Your task to perform on an android device: Open Android settings Image 0: 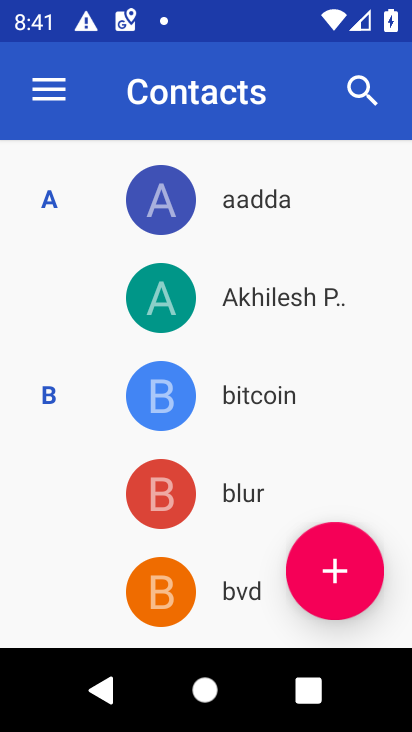
Step 0: press home button
Your task to perform on an android device: Open Android settings Image 1: 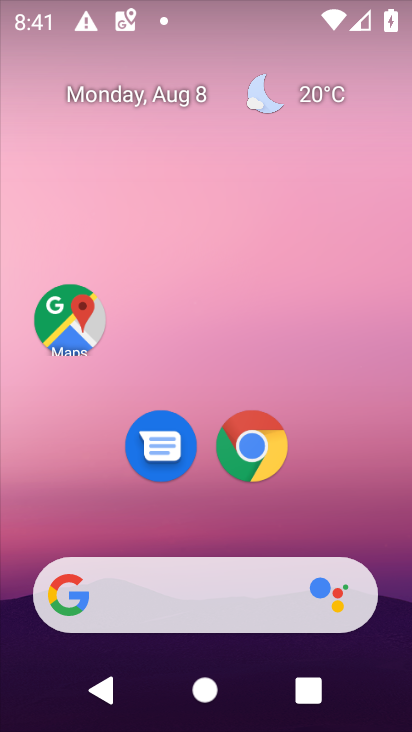
Step 1: drag from (395, 637) to (342, 154)
Your task to perform on an android device: Open Android settings Image 2: 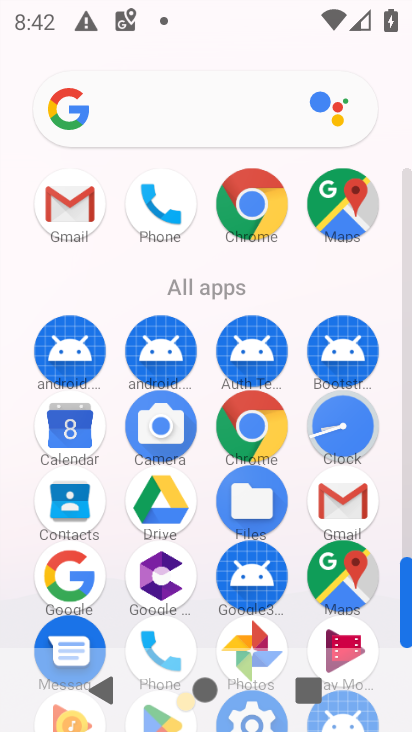
Step 2: click (408, 657)
Your task to perform on an android device: Open Android settings Image 3: 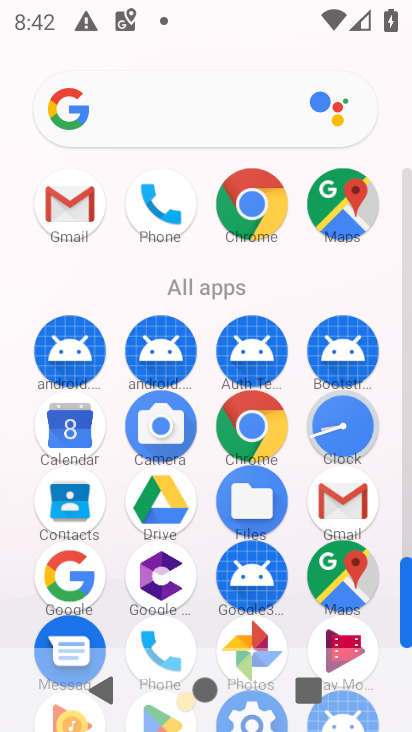
Step 3: drag from (405, 636) to (408, 679)
Your task to perform on an android device: Open Android settings Image 4: 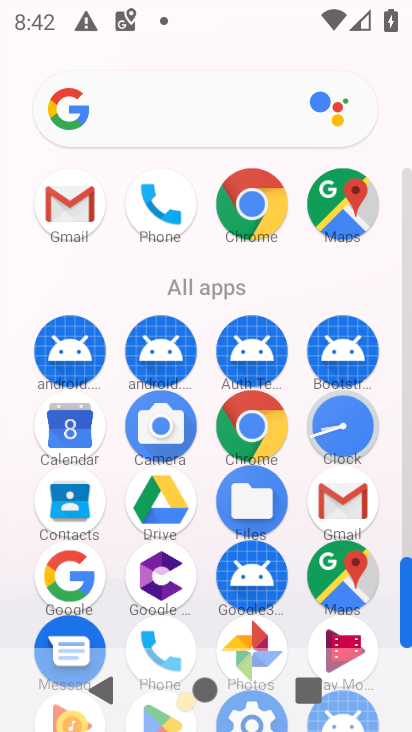
Step 4: click (406, 536)
Your task to perform on an android device: Open Android settings Image 5: 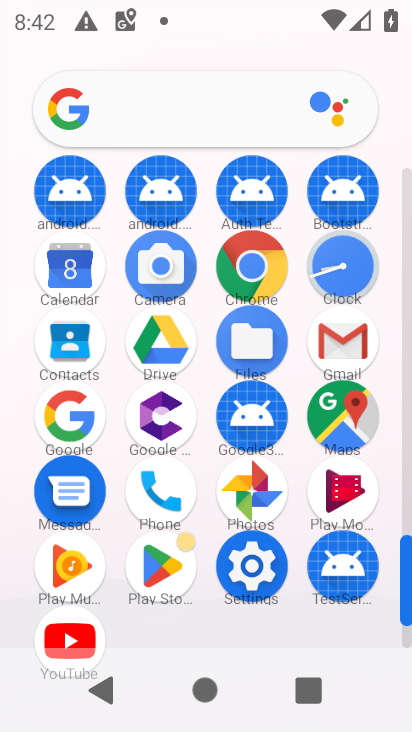
Step 5: click (253, 569)
Your task to perform on an android device: Open Android settings Image 6: 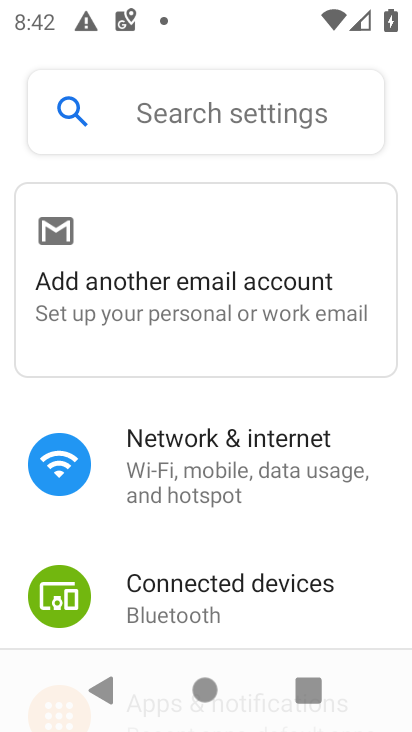
Step 6: drag from (364, 567) to (308, 74)
Your task to perform on an android device: Open Android settings Image 7: 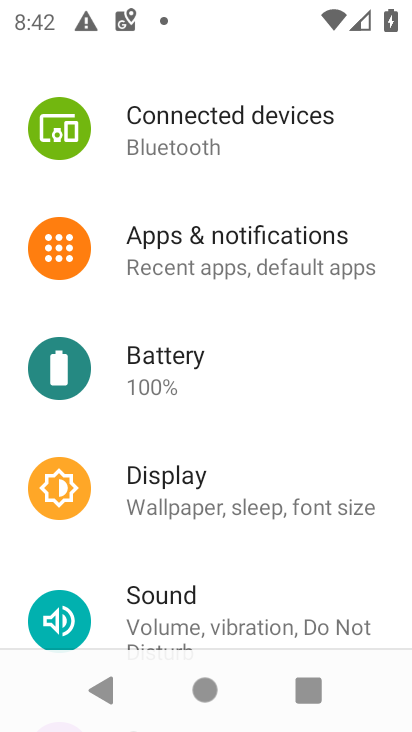
Step 7: drag from (310, 576) to (289, 228)
Your task to perform on an android device: Open Android settings Image 8: 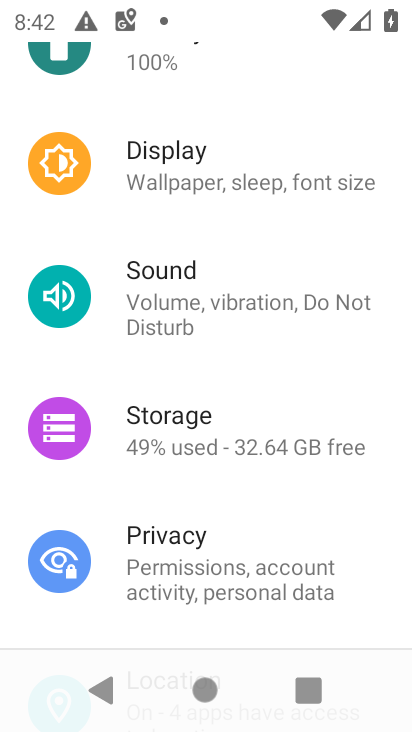
Step 8: drag from (346, 609) to (337, 233)
Your task to perform on an android device: Open Android settings Image 9: 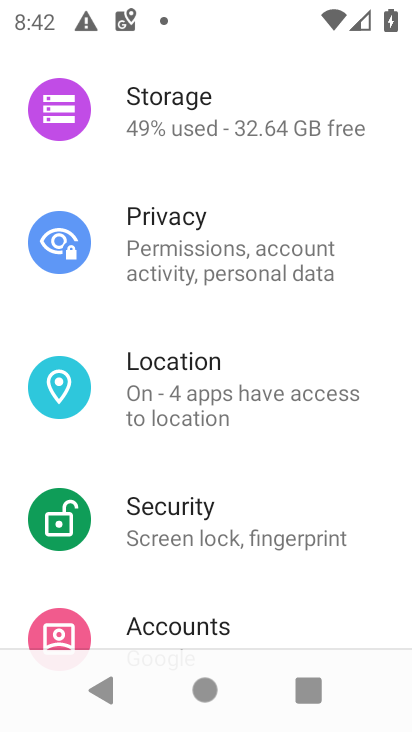
Step 9: drag from (327, 592) to (333, 128)
Your task to perform on an android device: Open Android settings Image 10: 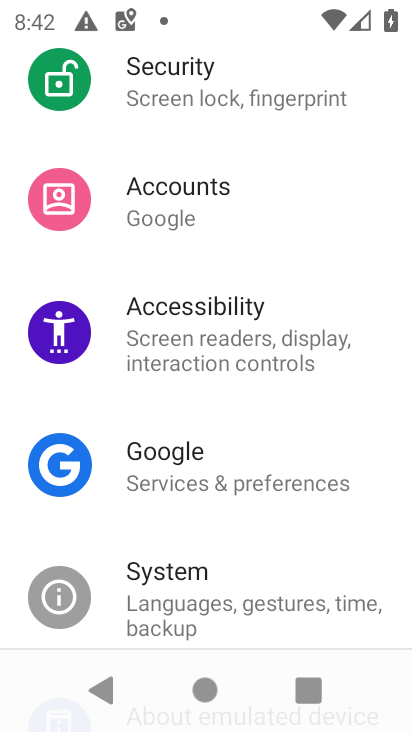
Step 10: drag from (328, 620) to (319, 349)
Your task to perform on an android device: Open Android settings Image 11: 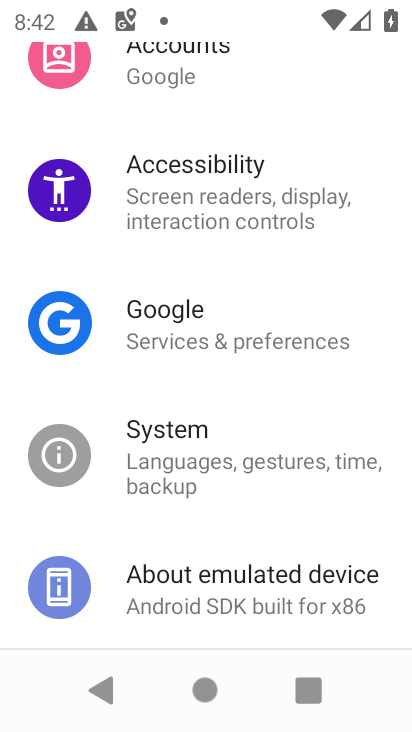
Step 11: click (254, 588)
Your task to perform on an android device: Open Android settings Image 12: 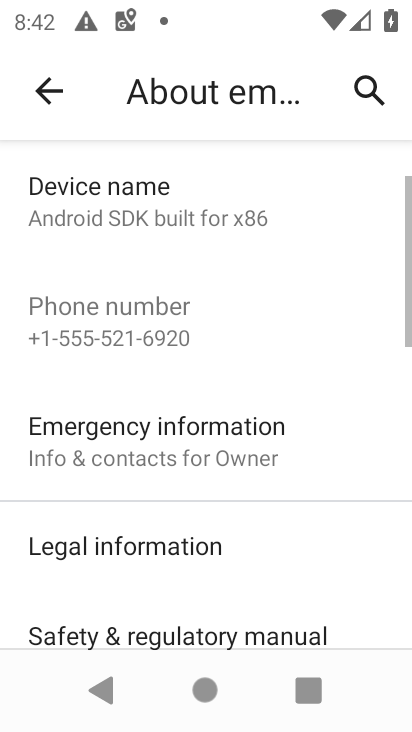
Step 12: task complete